Your task to perform on an android device: uninstall "Pandora - Music & Podcasts" Image 0: 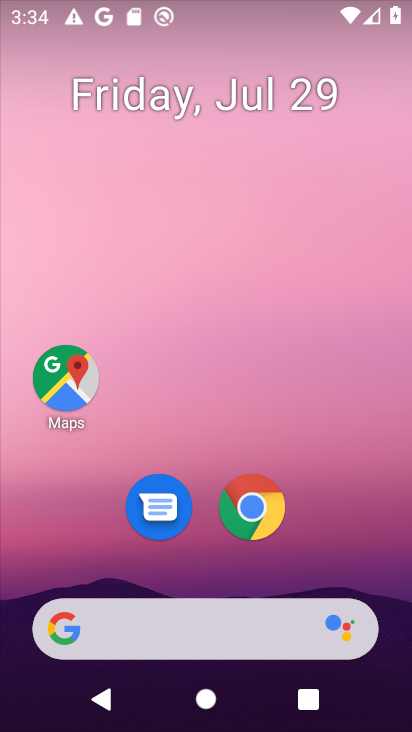
Step 0: click (272, 642)
Your task to perform on an android device: uninstall "Pandora - Music & Podcasts" Image 1: 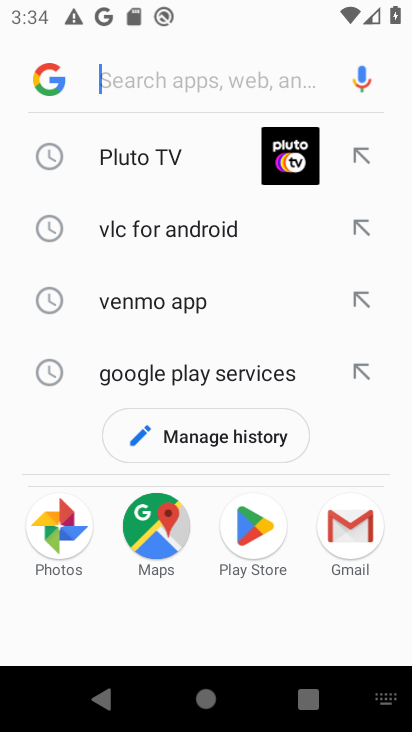
Step 1: type "pandora"
Your task to perform on an android device: uninstall "Pandora - Music & Podcasts" Image 2: 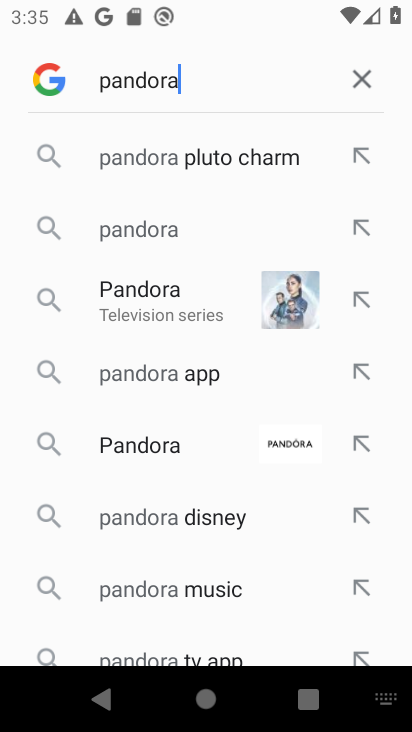
Step 2: click (235, 141)
Your task to perform on an android device: uninstall "Pandora - Music & Podcasts" Image 3: 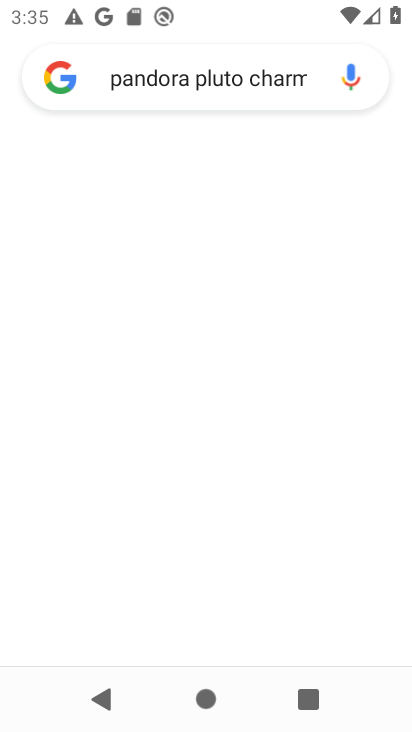
Step 3: task complete